Your task to perform on an android device: Go to Maps Image 0: 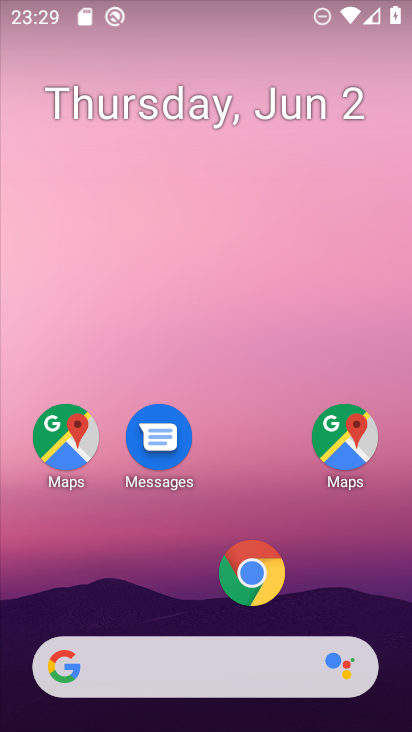
Step 0: click (334, 445)
Your task to perform on an android device: Go to Maps Image 1: 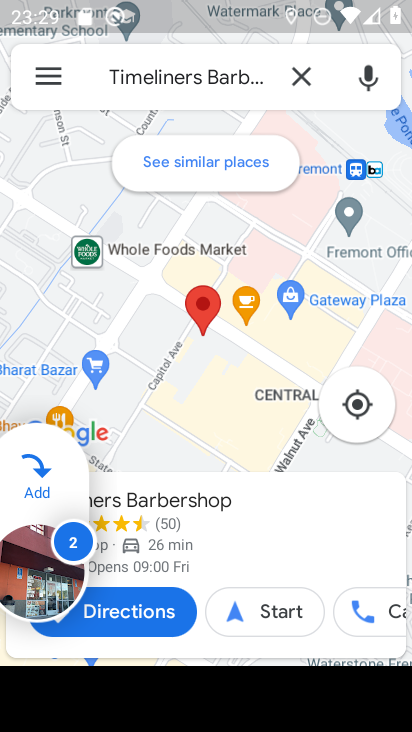
Step 1: task complete